Your task to perform on an android device: Open CNN.com Image 0: 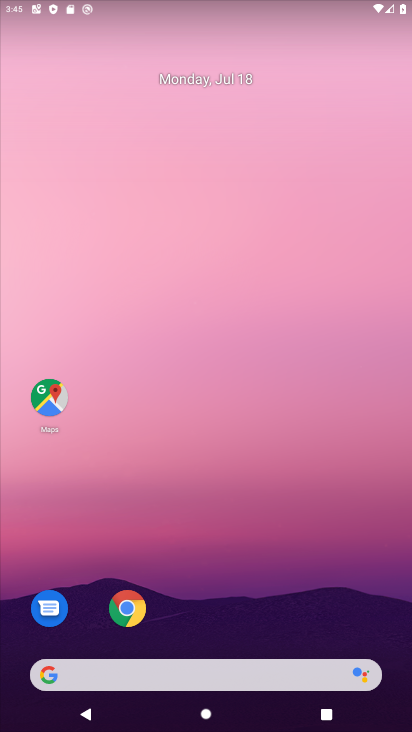
Step 0: click (185, 672)
Your task to perform on an android device: Open CNN.com Image 1: 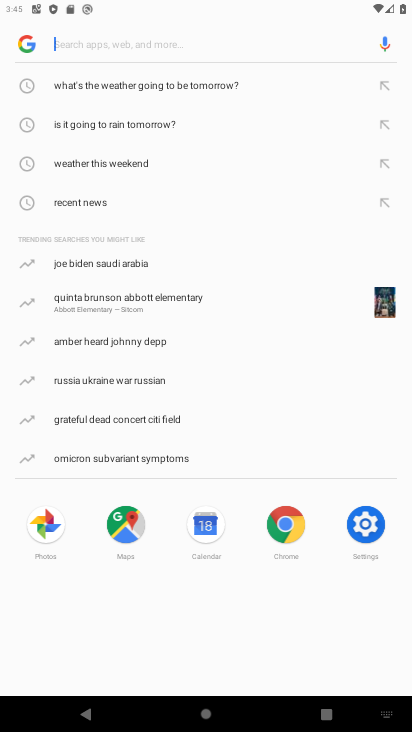
Step 1: type "CNN.com"
Your task to perform on an android device: Open CNN.com Image 2: 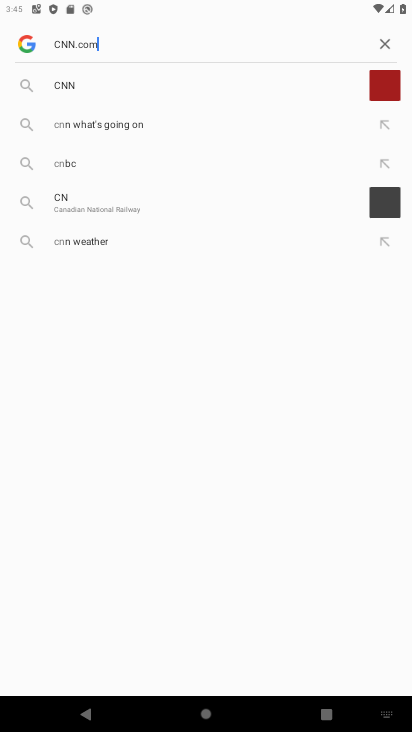
Step 2: type ""
Your task to perform on an android device: Open CNN.com Image 3: 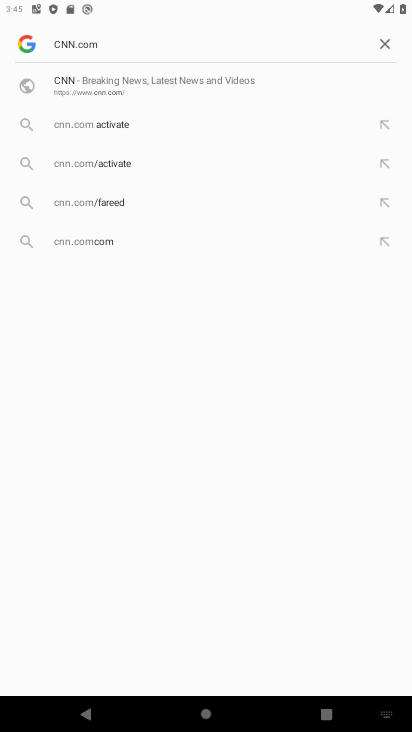
Step 3: press enter
Your task to perform on an android device: Open CNN.com Image 4: 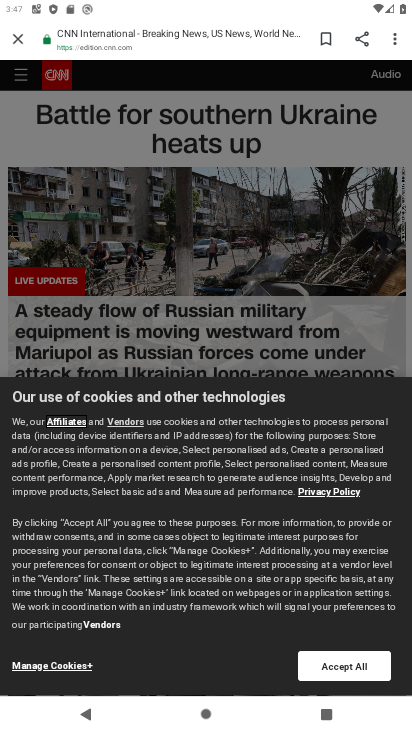
Step 4: task complete